Your task to perform on an android device: Go to location settings Image 0: 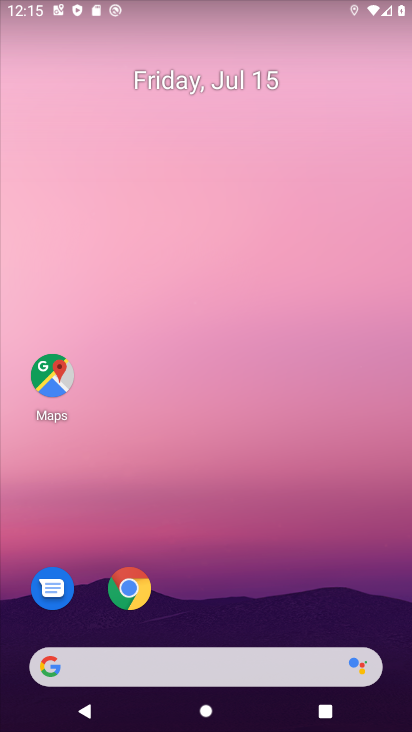
Step 0: click (130, 593)
Your task to perform on an android device: Go to location settings Image 1: 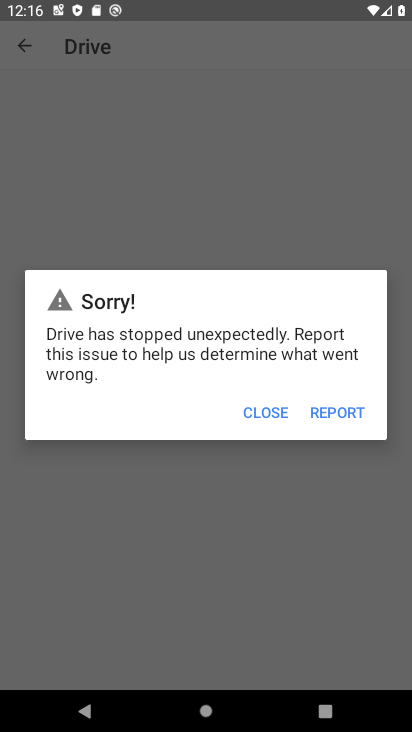
Step 1: press home button
Your task to perform on an android device: Go to location settings Image 2: 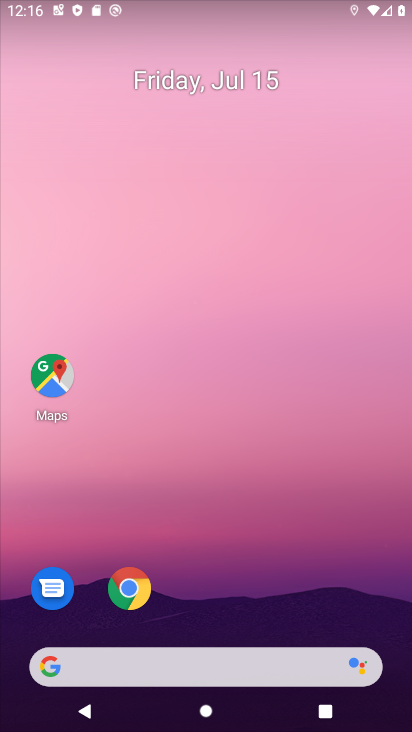
Step 2: drag from (254, 684) to (232, 206)
Your task to perform on an android device: Go to location settings Image 3: 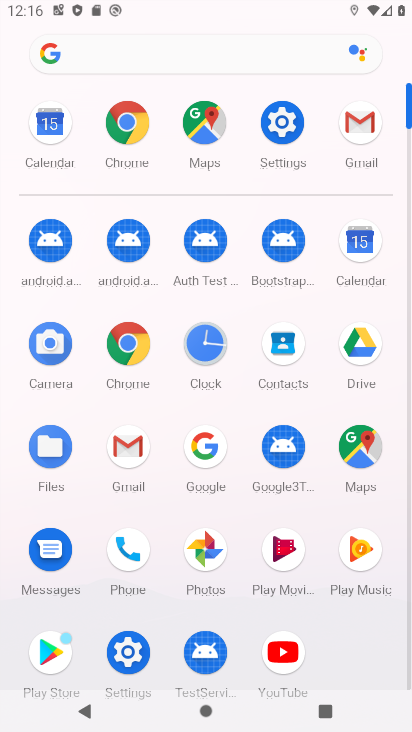
Step 3: click (294, 136)
Your task to perform on an android device: Go to location settings Image 4: 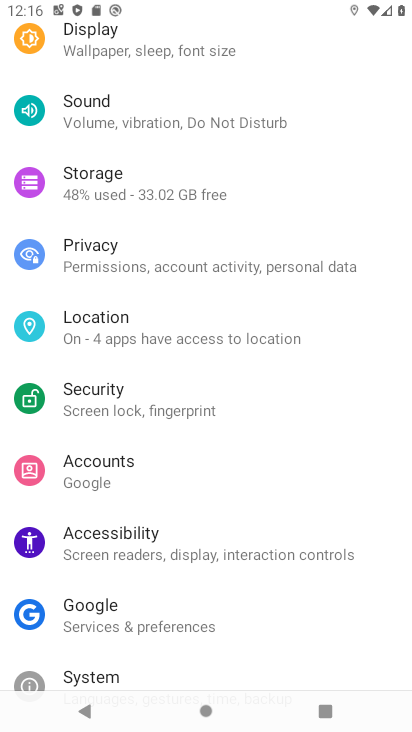
Step 4: click (286, 329)
Your task to perform on an android device: Go to location settings Image 5: 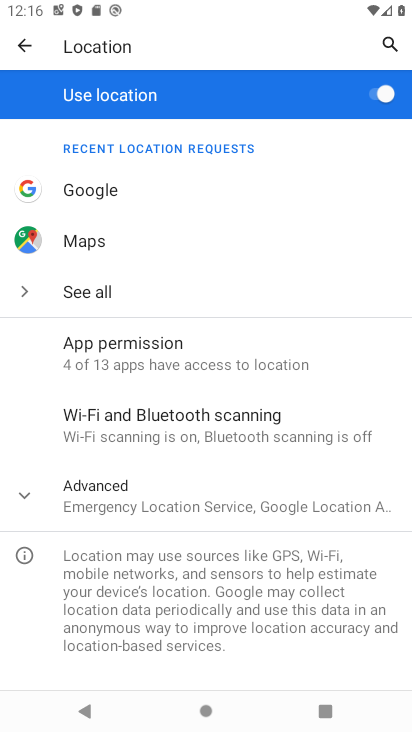
Step 5: task complete